Your task to perform on an android device: Go to Wikipedia Image 0: 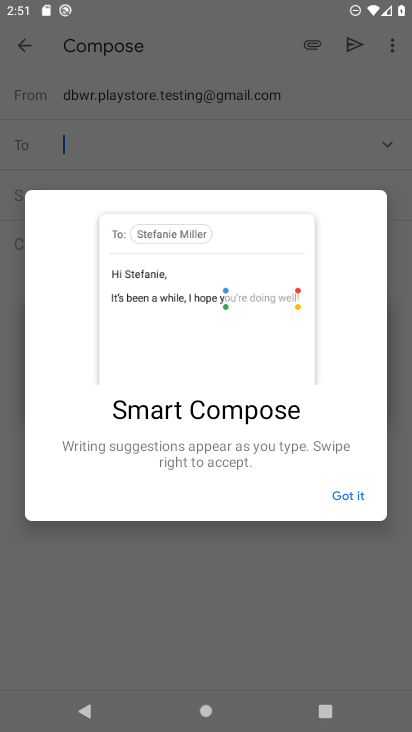
Step 0: press home button
Your task to perform on an android device: Go to Wikipedia Image 1: 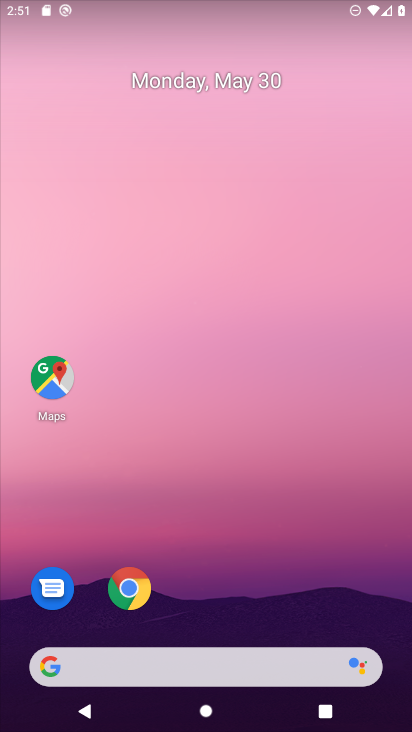
Step 1: click (124, 587)
Your task to perform on an android device: Go to Wikipedia Image 2: 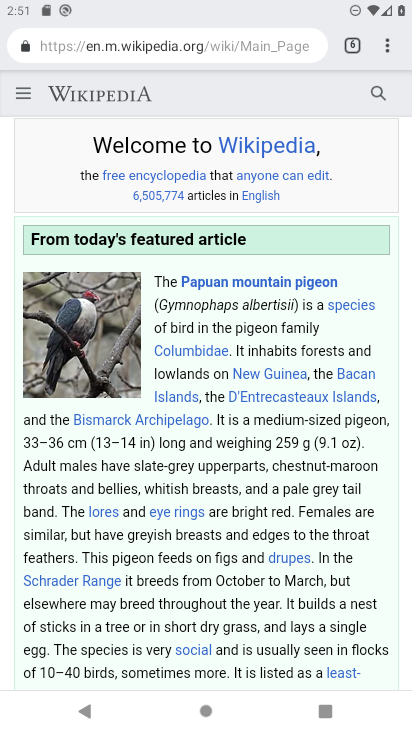
Step 2: task complete